Your task to perform on an android device: turn off location Image 0: 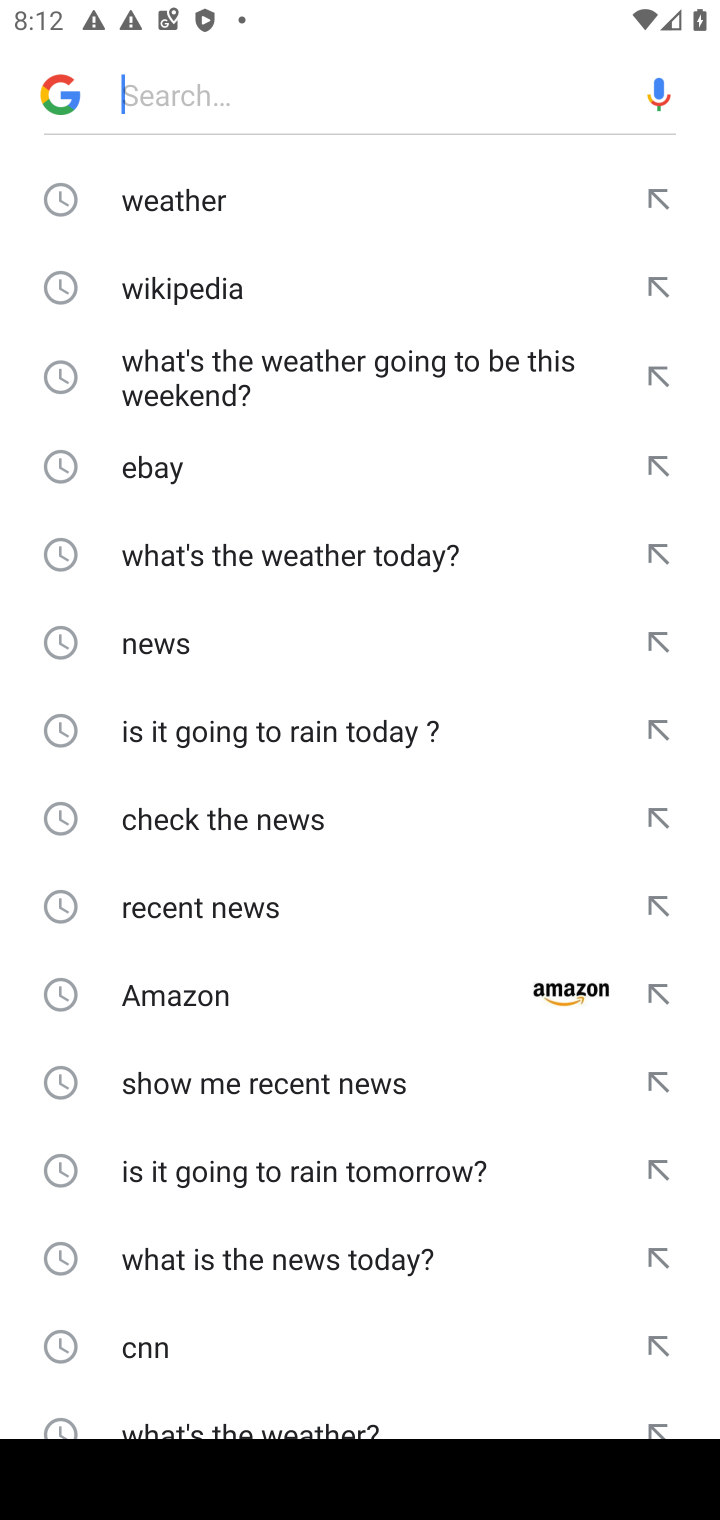
Step 0: press back button
Your task to perform on an android device: turn off location Image 1: 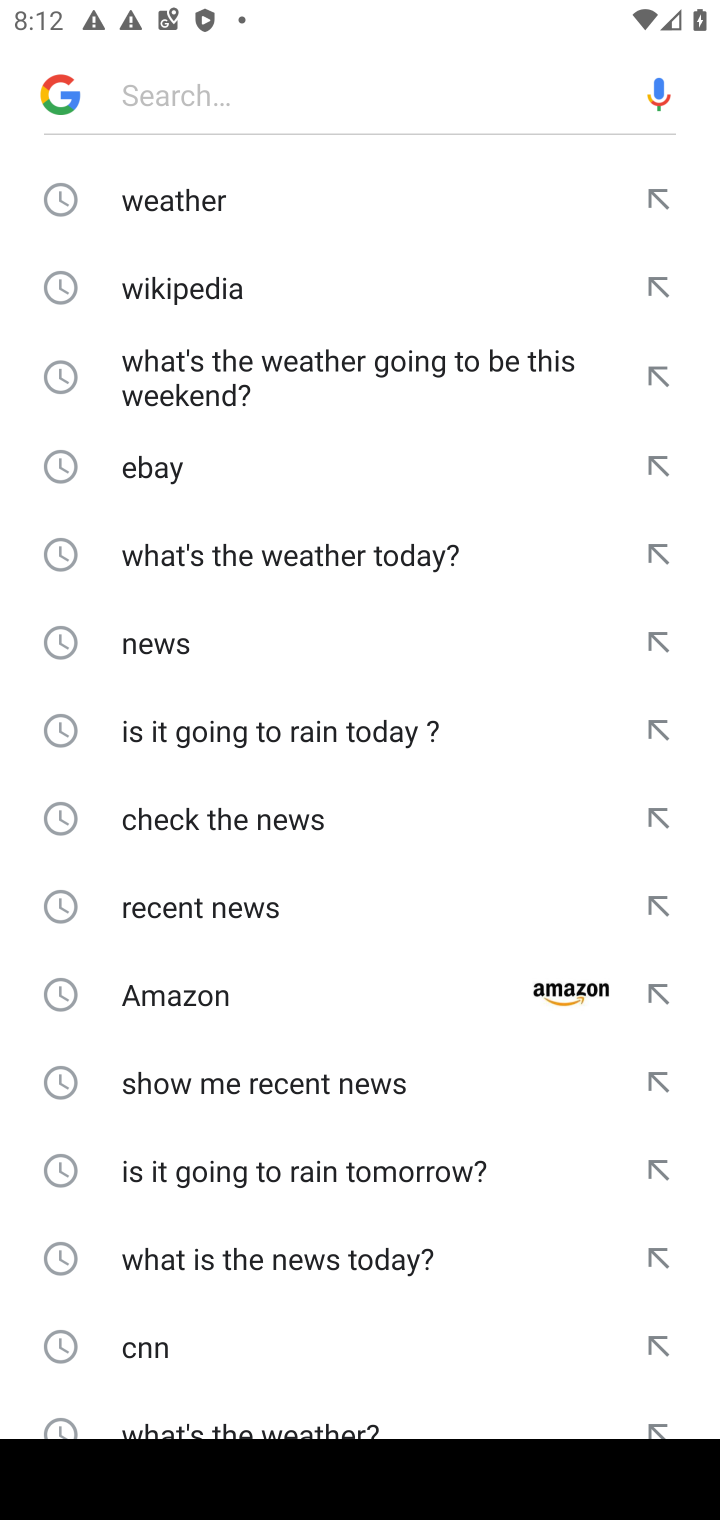
Step 1: press back button
Your task to perform on an android device: turn off location Image 2: 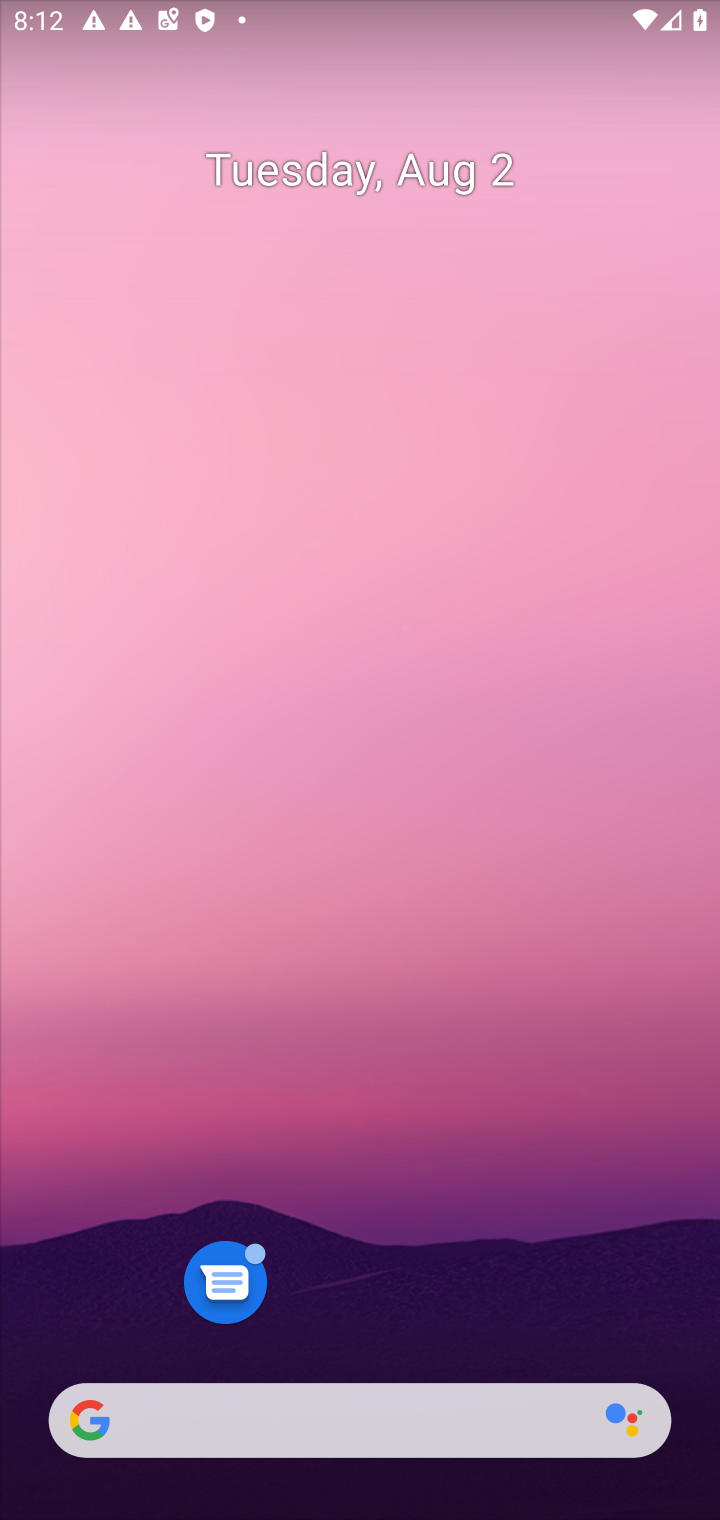
Step 2: drag from (423, 1334) to (389, 75)
Your task to perform on an android device: turn off location Image 3: 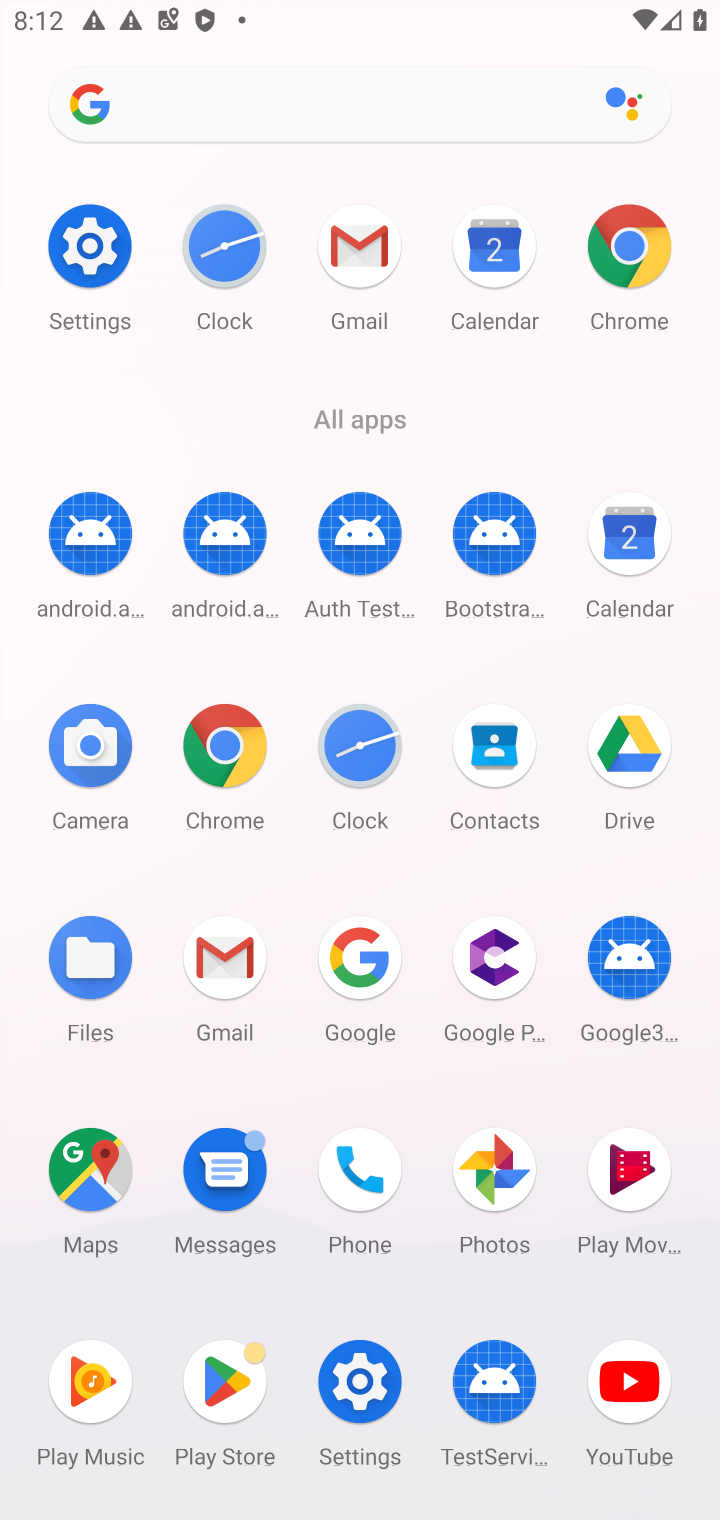
Step 3: click (379, 1383)
Your task to perform on an android device: turn off location Image 4: 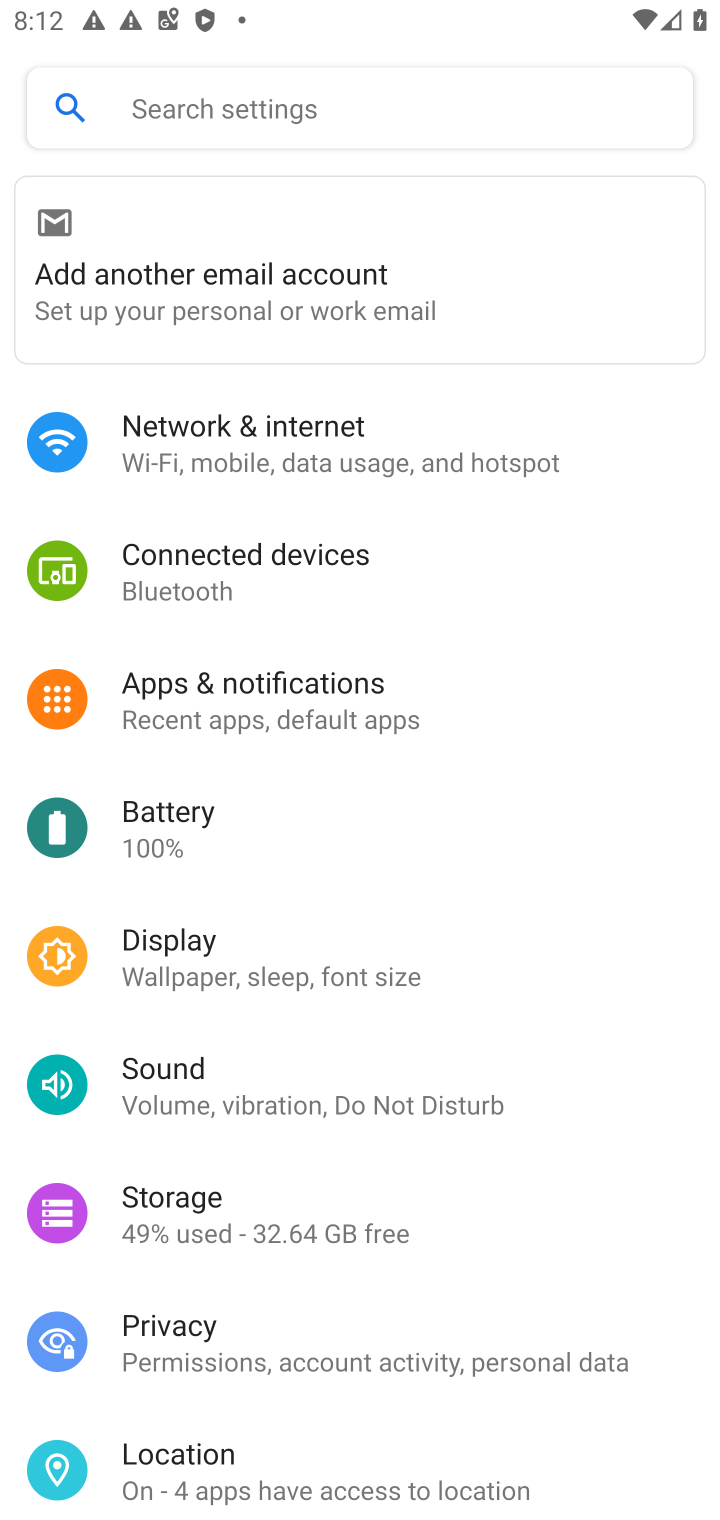
Step 4: click (173, 1440)
Your task to perform on an android device: turn off location Image 5: 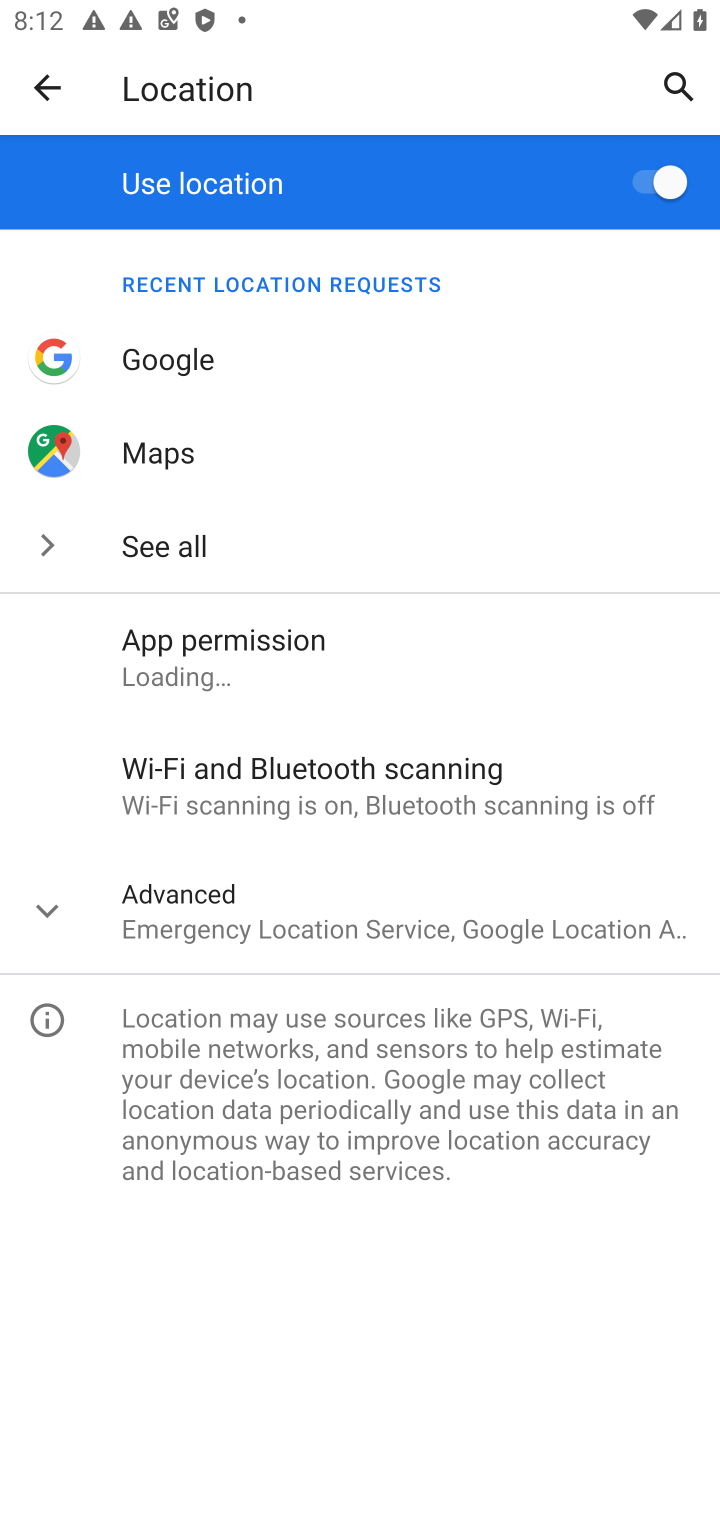
Step 5: click (626, 201)
Your task to perform on an android device: turn off location Image 6: 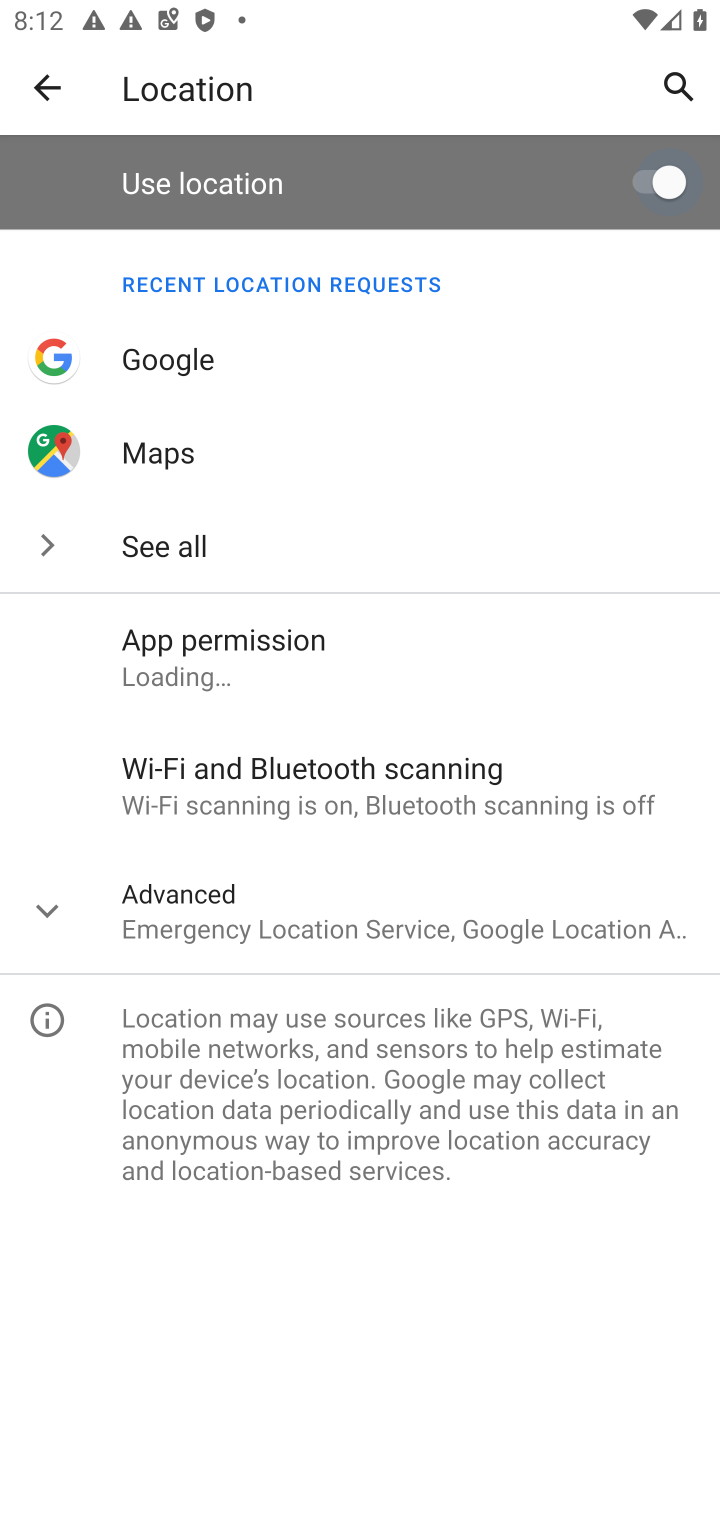
Step 6: task complete